Your task to perform on an android device: Go to sound settings Image 0: 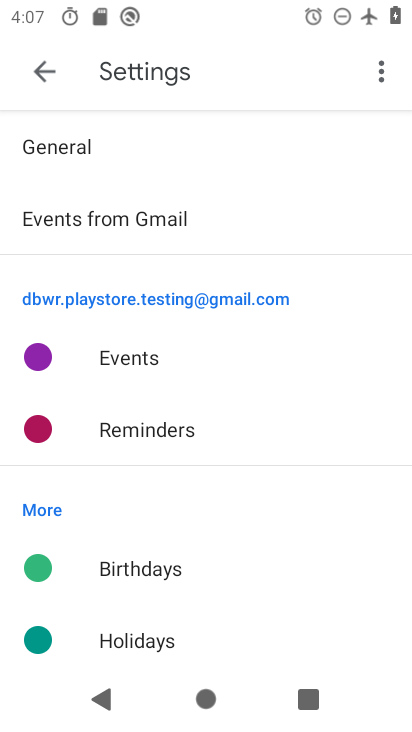
Step 0: drag from (194, 540) to (206, 322)
Your task to perform on an android device: Go to sound settings Image 1: 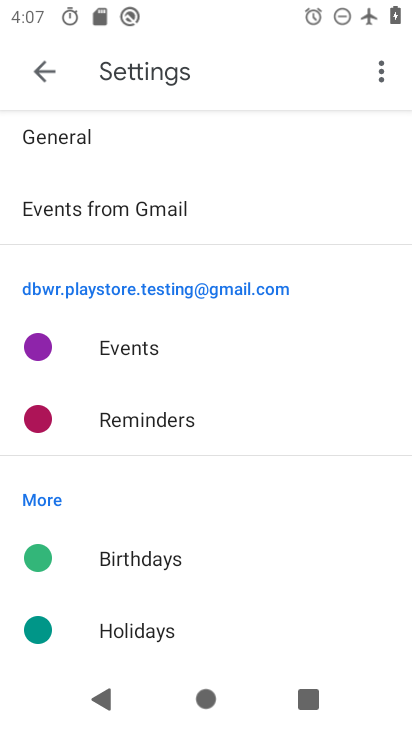
Step 1: press home button
Your task to perform on an android device: Go to sound settings Image 2: 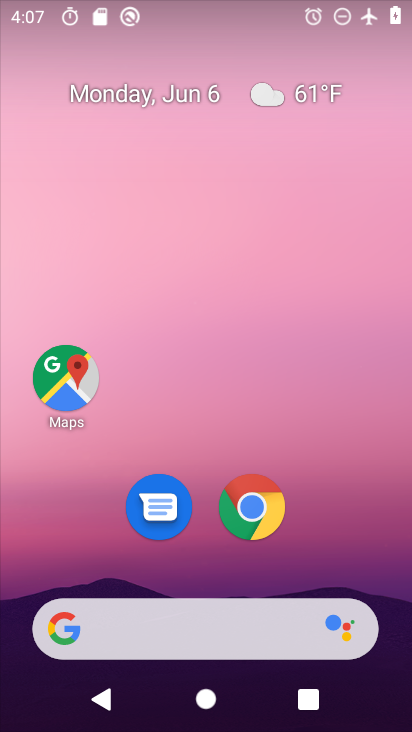
Step 2: drag from (198, 572) to (218, 187)
Your task to perform on an android device: Go to sound settings Image 3: 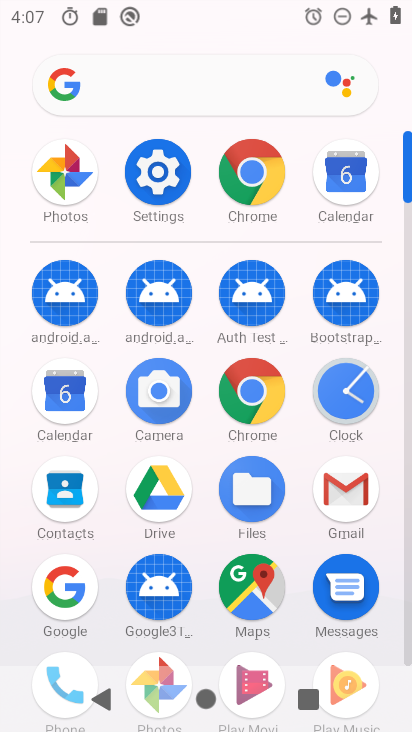
Step 3: click (170, 172)
Your task to perform on an android device: Go to sound settings Image 4: 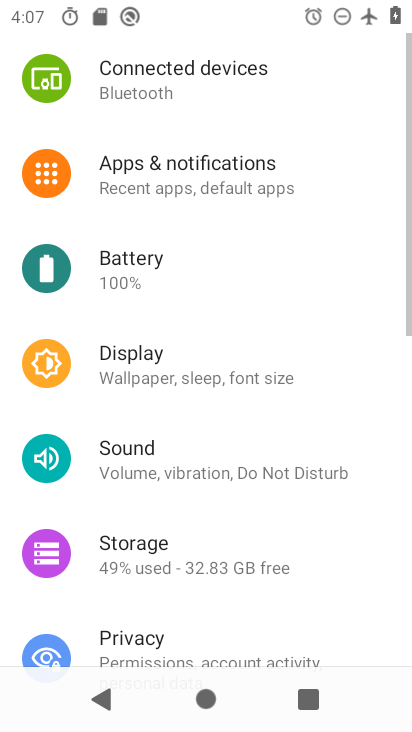
Step 4: click (183, 451)
Your task to perform on an android device: Go to sound settings Image 5: 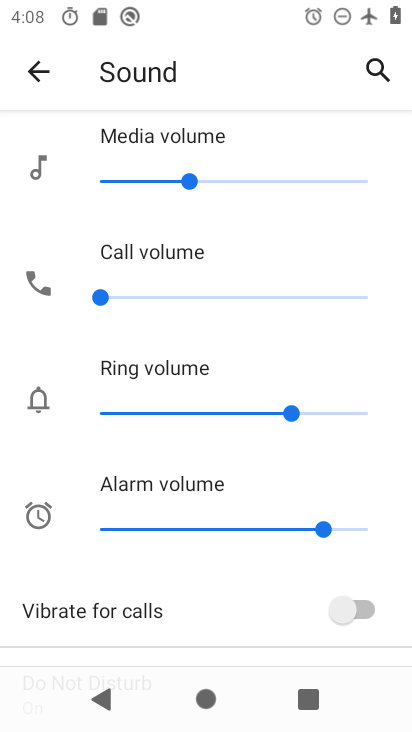
Step 5: task complete